Your task to perform on an android device: Open network settings Image 0: 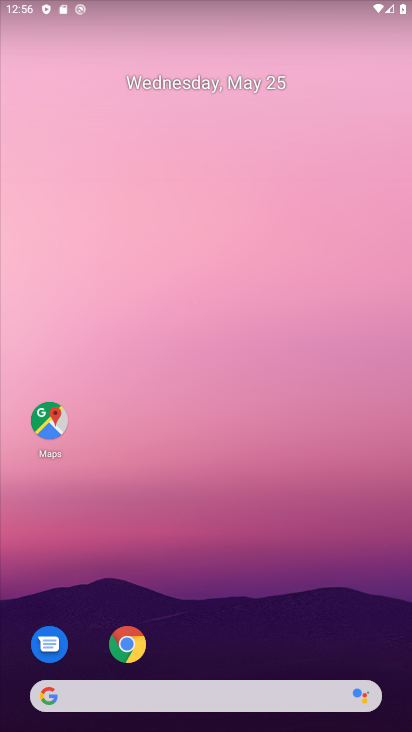
Step 0: drag from (184, 654) to (148, 52)
Your task to perform on an android device: Open network settings Image 1: 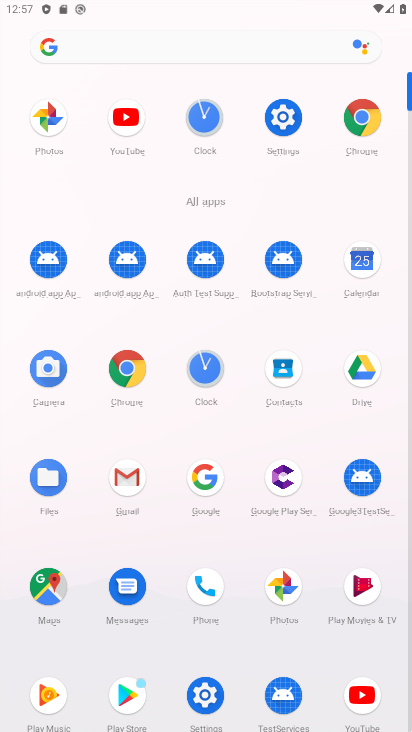
Step 1: click (275, 130)
Your task to perform on an android device: Open network settings Image 2: 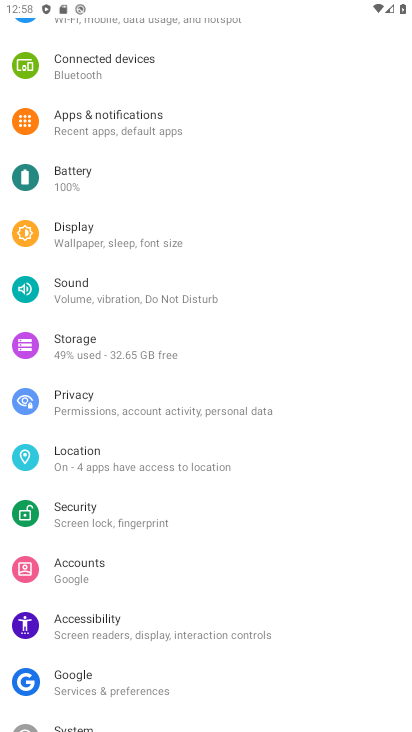
Step 2: drag from (128, 284) to (142, 623)
Your task to perform on an android device: Open network settings Image 3: 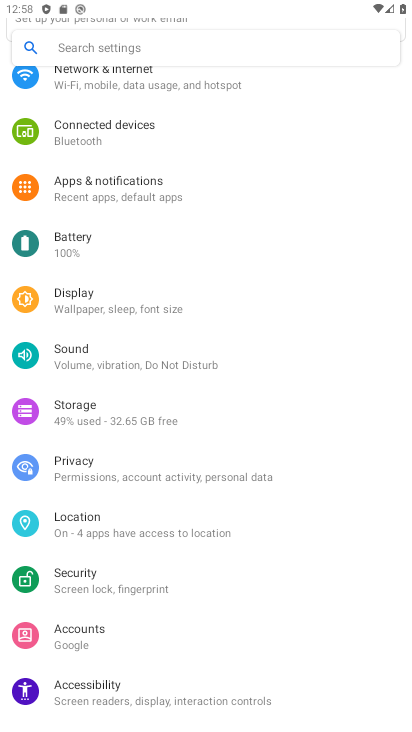
Step 3: click (107, 87)
Your task to perform on an android device: Open network settings Image 4: 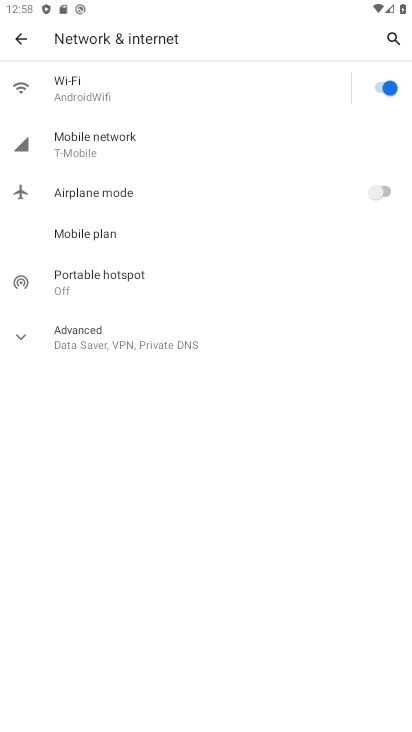
Step 4: task complete